Your task to perform on an android device: turn on notifications settings in the gmail app Image 0: 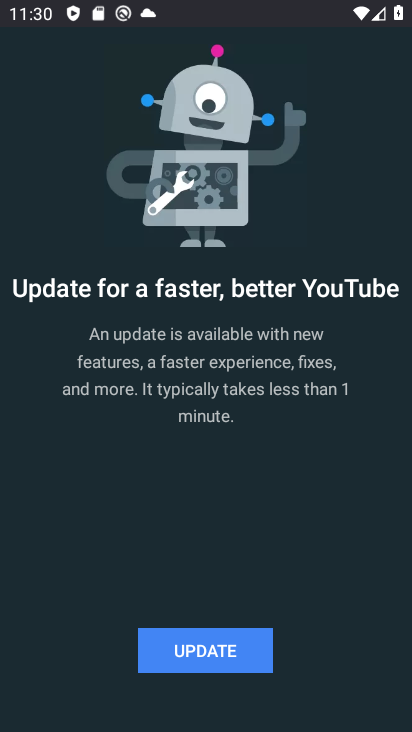
Step 0: press home button
Your task to perform on an android device: turn on notifications settings in the gmail app Image 1: 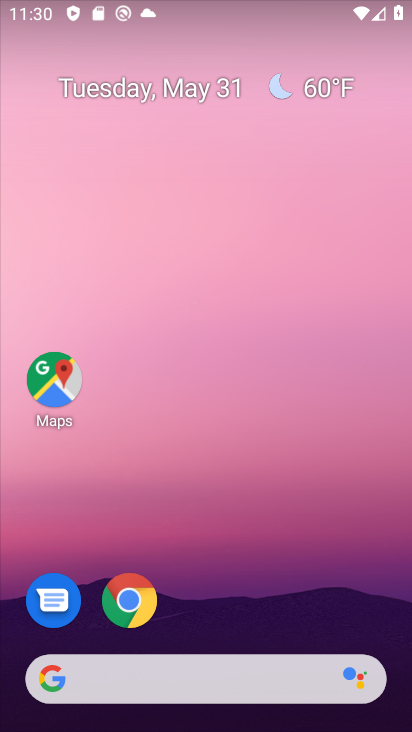
Step 1: drag from (354, 619) to (328, 91)
Your task to perform on an android device: turn on notifications settings in the gmail app Image 2: 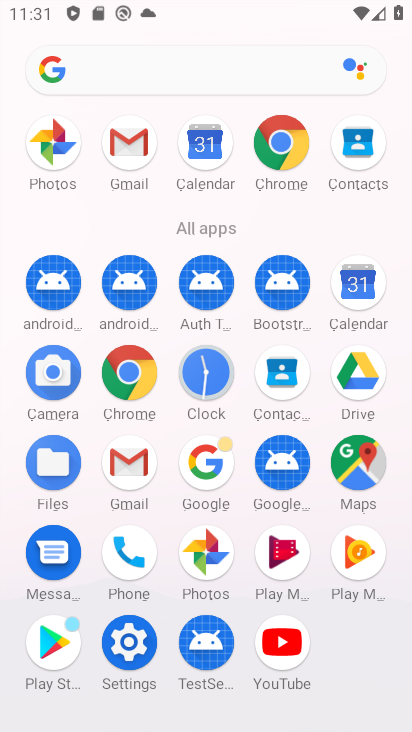
Step 2: click (124, 472)
Your task to perform on an android device: turn on notifications settings in the gmail app Image 3: 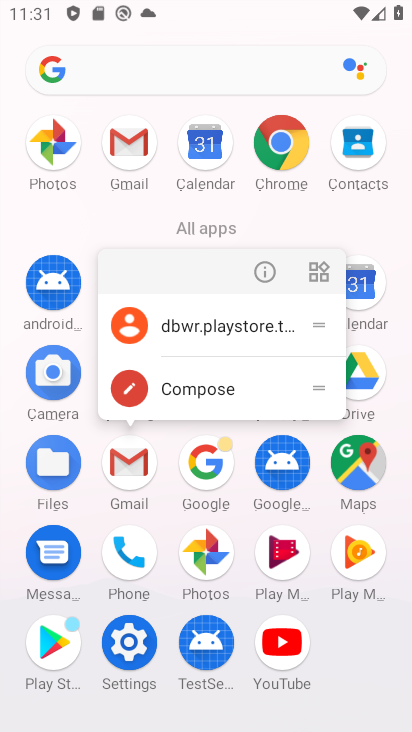
Step 3: click (138, 459)
Your task to perform on an android device: turn on notifications settings in the gmail app Image 4: 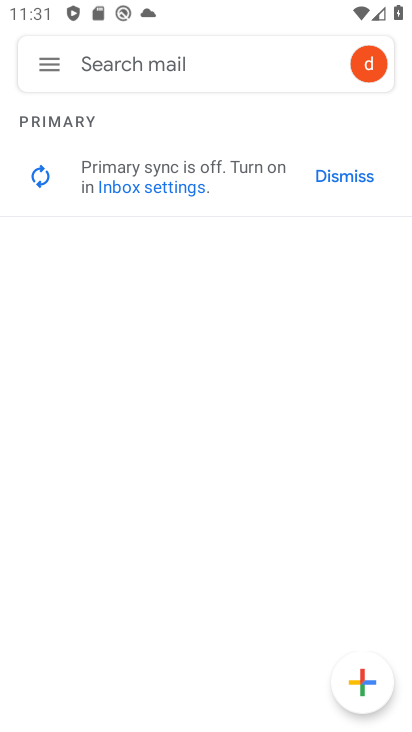
Step 4: click (53, 71)
Your task to perform on an android device: turn on notifications settings in the gmail app Image 5: 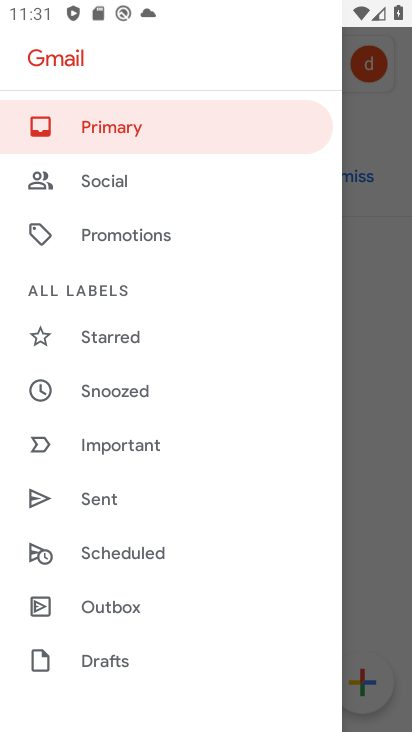
Step 5: drag from (282, 542) to (276, 363)
Your task to perform on an android device: turn on notifications settings in the gmail app Image 6: 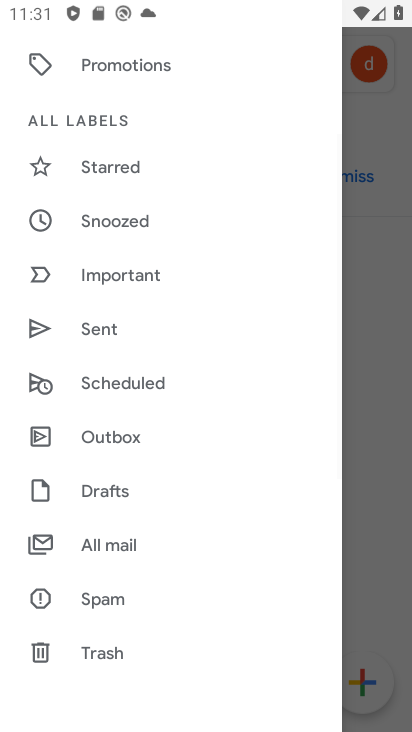
Step 6: drag from (254, 532) to (265, 406)
Your task to perform on an android device: turn on notifications settings in the gmail app Image 7: 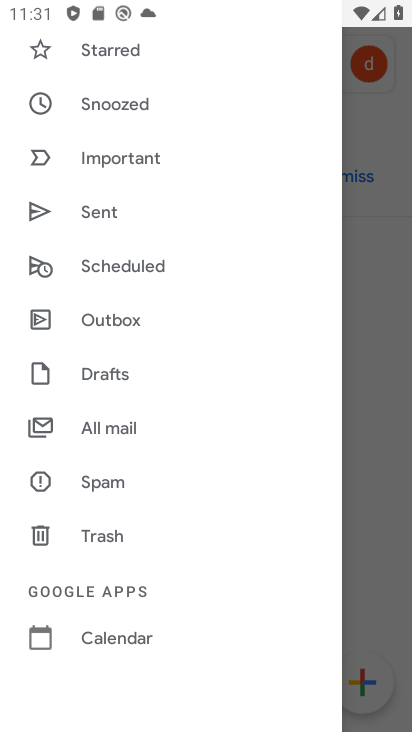
Step 7: drag from (269, 583) to (287, 407)
Your task to perform on an android device: turn on notifications settings in the gmail app Image 8: 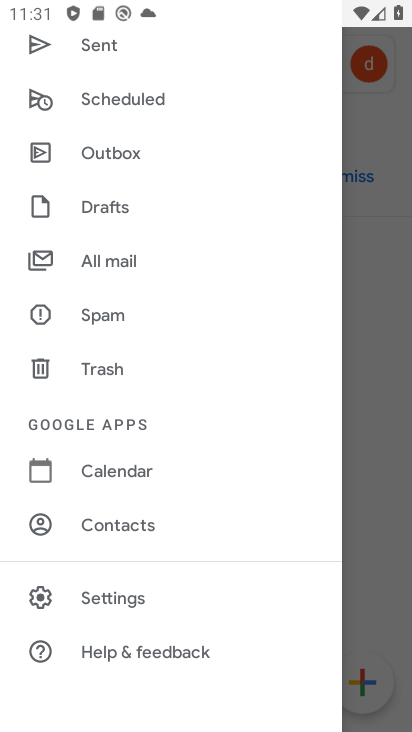
Step 8: drag from (259, 584) to (234, 388)
Your task to perform on an android device: turn on notifications settings in the gmail app Image 9: 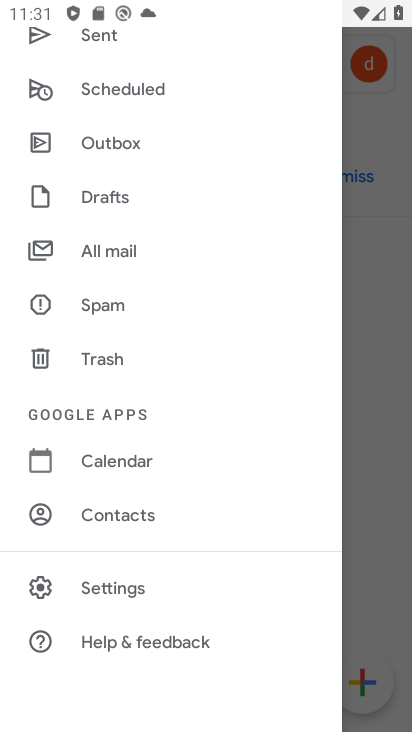
Step 9: click (138, 593)
Your task to perform on an android device: turn on notifications settings in the gmail app Image 10: 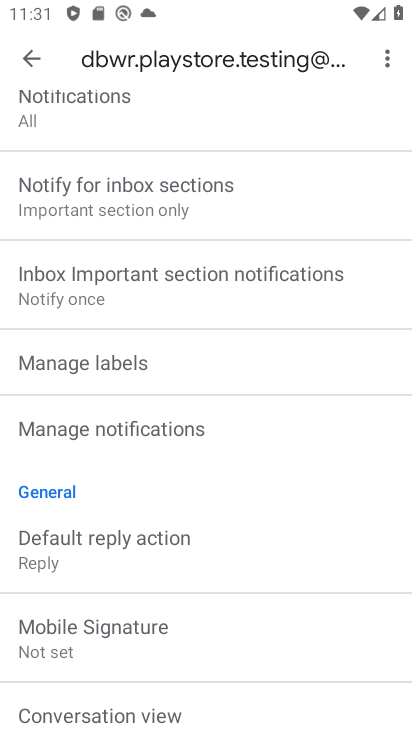
Step 10: drag from (310, 523) to (296, 389)
Your task to perform on an android device: turn on notifications settings in the gmail app Image 11: 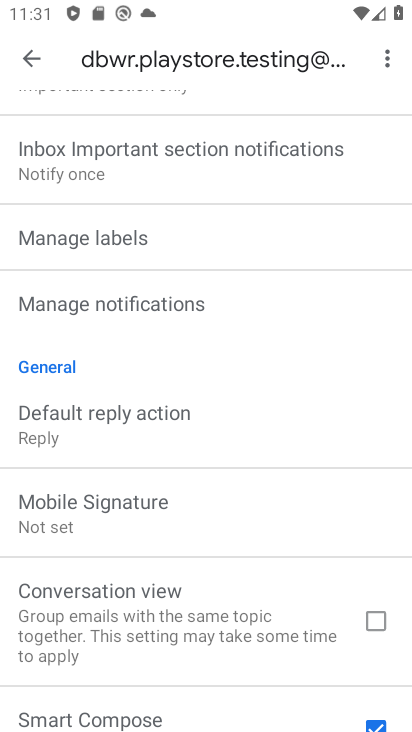
Step 11: drag from (289, 539) to (275, 396)
Your task to perform on an android device: turn on notifications settings in the gmail app Image 12: 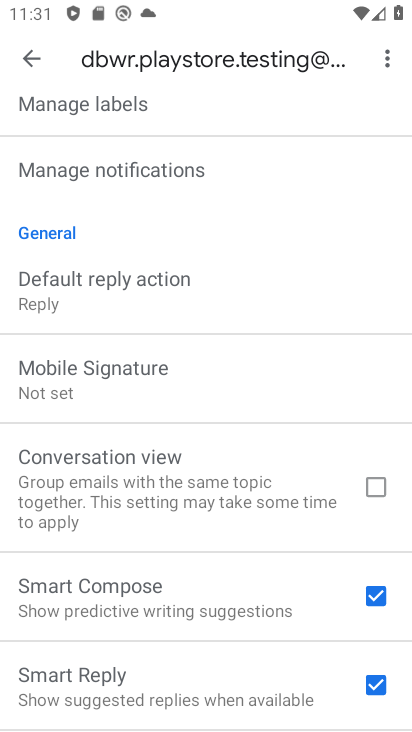
Step 12: drag from (292, 612) to (291, 456)
Your task to perform on an android device: turn on notifications settings in the gmail app Image 13: 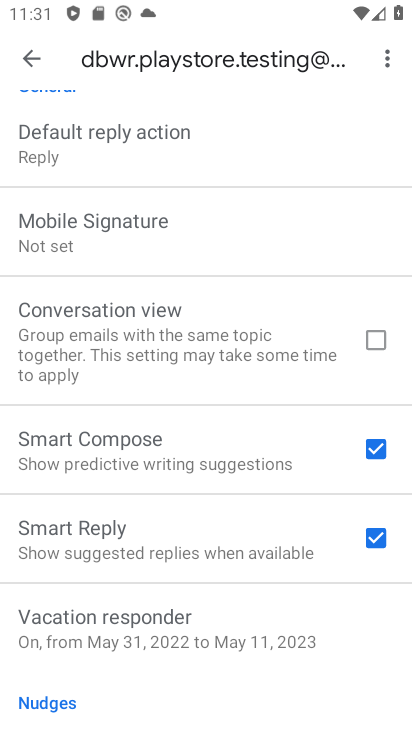
Step 13: drag from (291, 605) to (291, 447)
Your task to perform on an android device: turn on notifications settings in the gmail app Image 14: 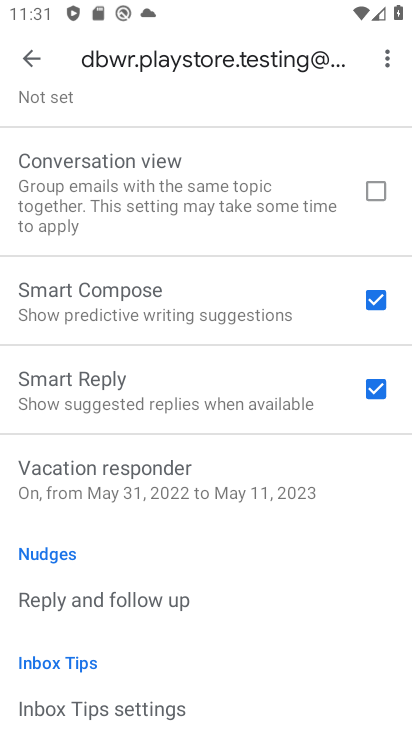
Step 14: drag from (281, 330) to (276, 446)
Your task to perform on an android device: turn on notifications settings in the gmail app Image 15: 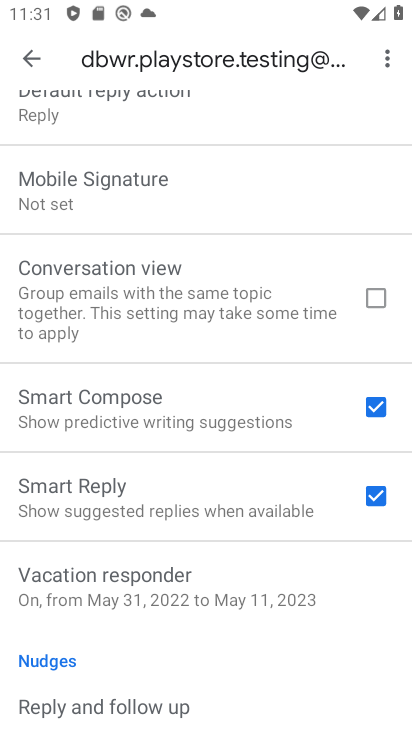
Step 15: drag from (299, 246) to (313, 376)
Your task to perform on an android device: turn on notifications settings in the gmail app Image 16: 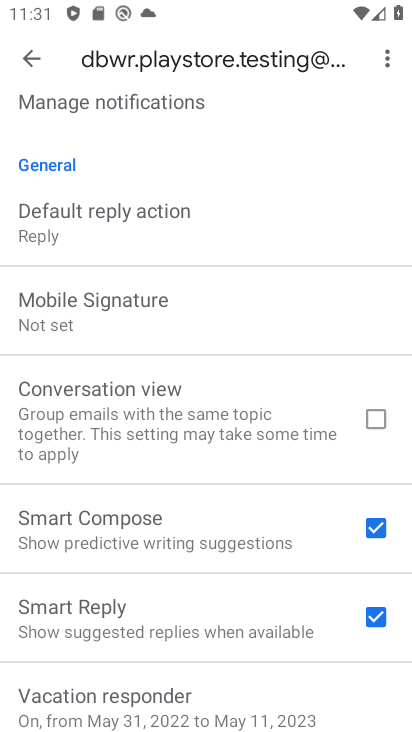
Step 16: drag from (284, 201) to (273, 350)
Your task to perform on an android device: turn on notifications settings in the gmail app Image 17: 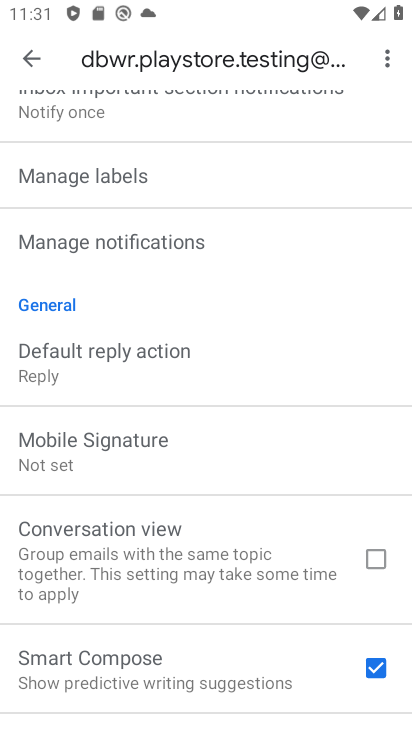
Step 17: drag from (268, 167) to (288, 433)
Your task to perform on an android device: turn on notifications settings in the gmail app Image 18: 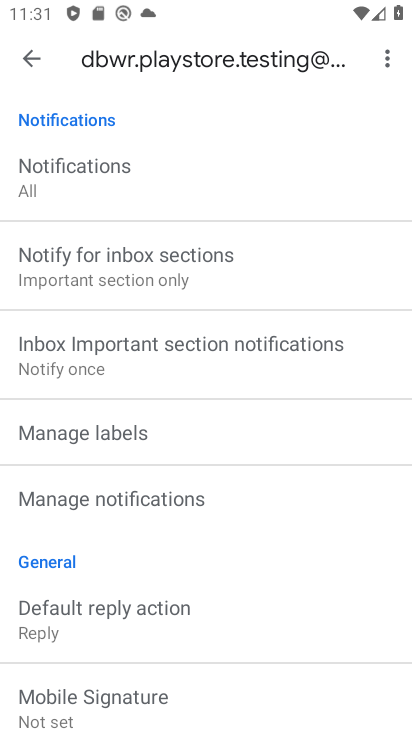
Step 18: click (217, 520)
Your task to perform on an android device: turn on notifications settings in the gmail app Image 19: 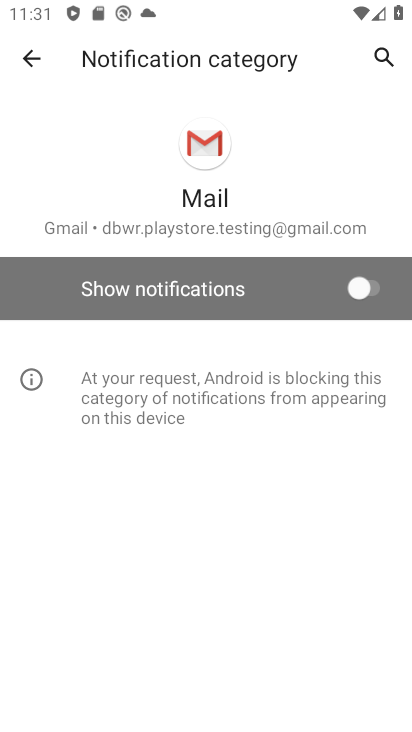
Step 19: click (363, 289)
Your task to perform on an android device: turn on notifications settings in the gmail app Image 20: 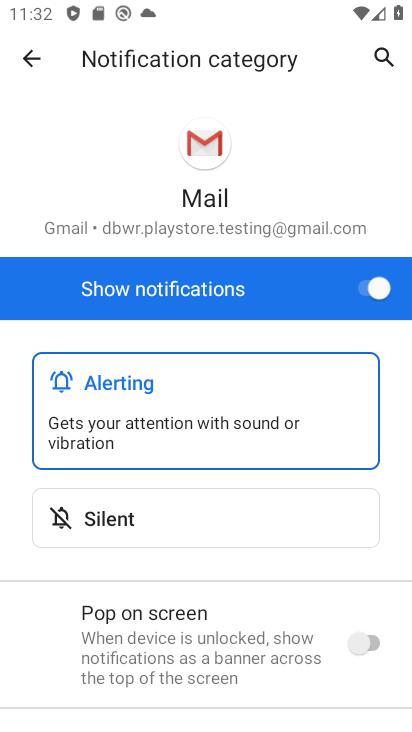
Step 20: task complete